Your task to perform on an android device: change notification settings in the gmail app Image 0: 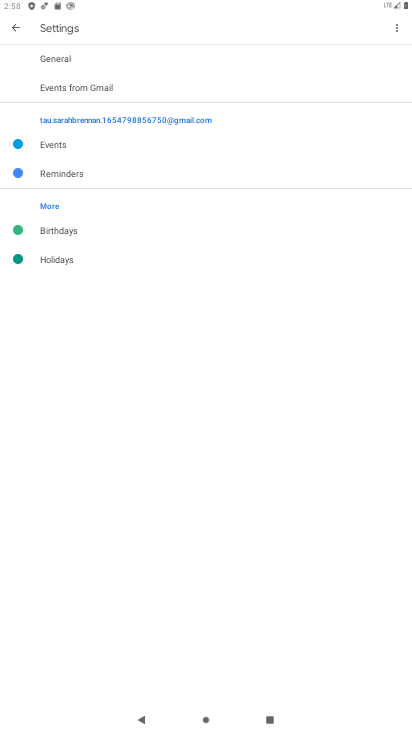
Step 0: press home button
Your task to perform on an android device: change notification settings in the gmail app Image 1: 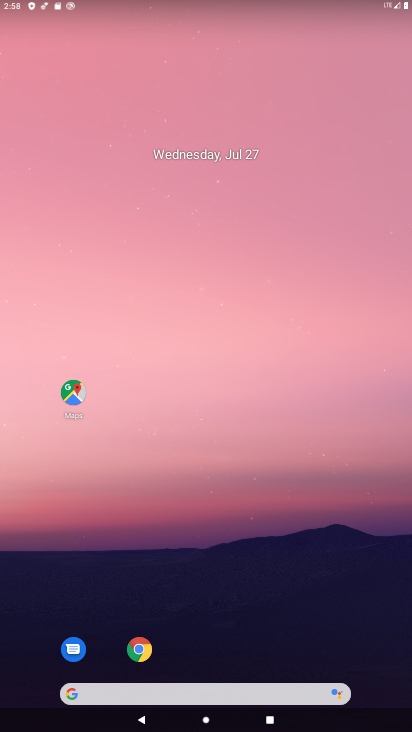
Step 1: drag from (284, 623) to (356, 83)
Your task to perform on an android device: change notification settings in the gmail app Image 2: 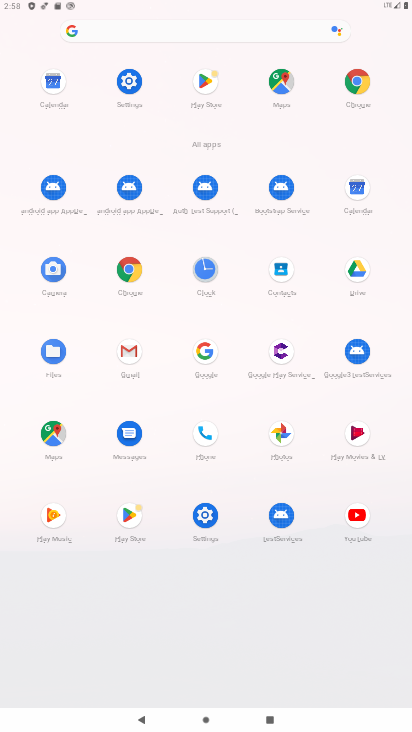
Step 2: click (135, 350)
Your task to perform on an android device: change notification settings in the gmail app Image 3: 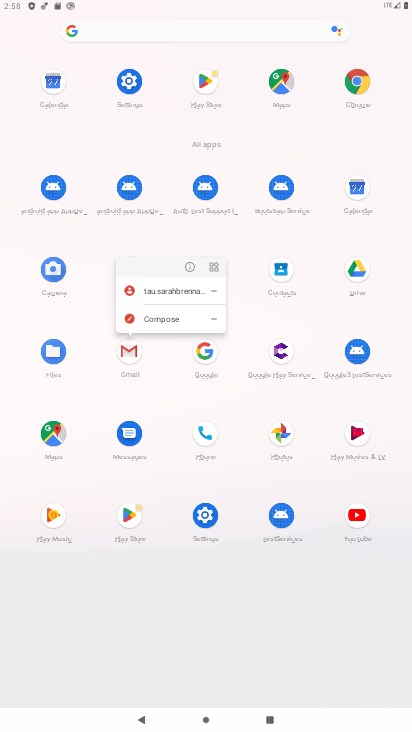
Step 3: click (190, 263)
Your task to perform on an android device: change notification settings in the gmail app Image 4: 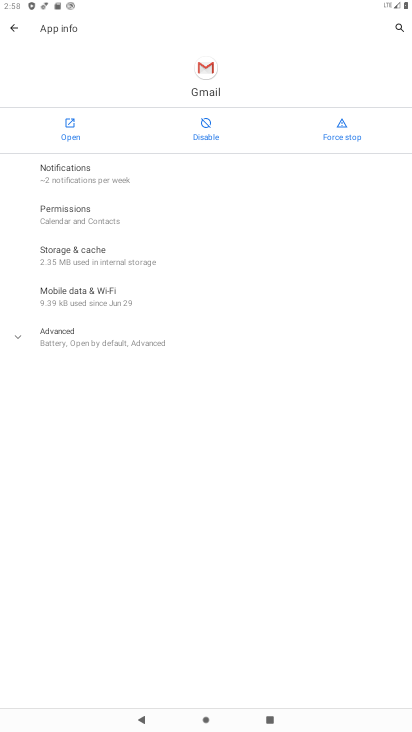
Step 4: click (98, 181)
Your task to perform on an android device: change notification settings in the gmail app Image 5: 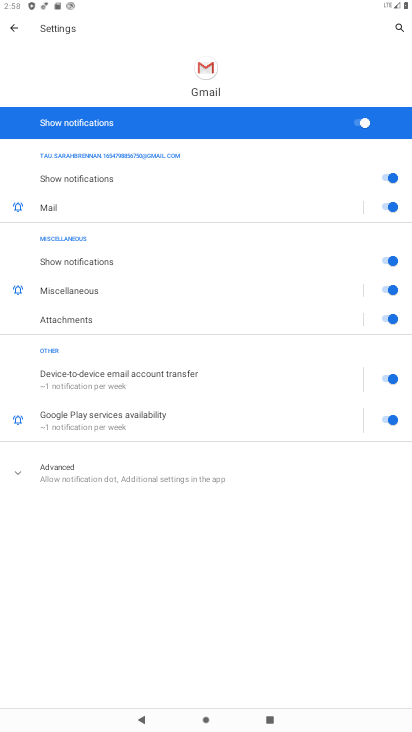
Step 5: click (258, 128)
Your task to perform on an android device: change notification settings in the gmail app Image 6: 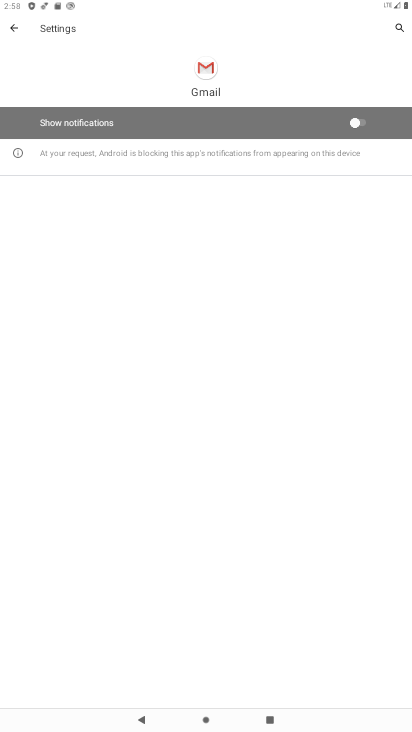
Step 6: task complete